Your task to perform on an android device: Open calendar and show me the second week of next month Image 0: 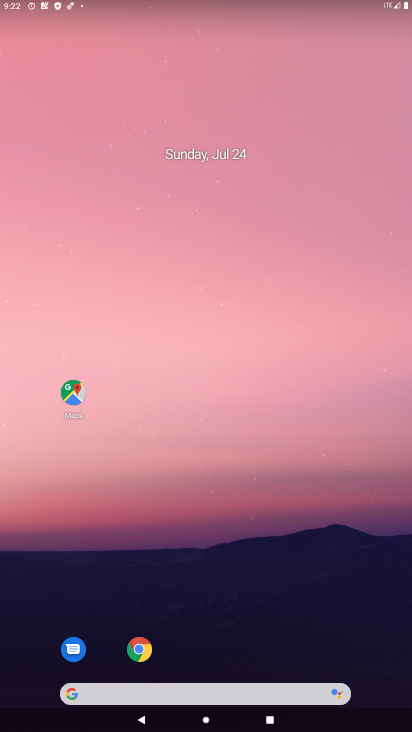
Step 0: drag from (9, 689) to (282, 105)
Your task to perform on an android device: Open calendar and show me the second week of next month Image 1: 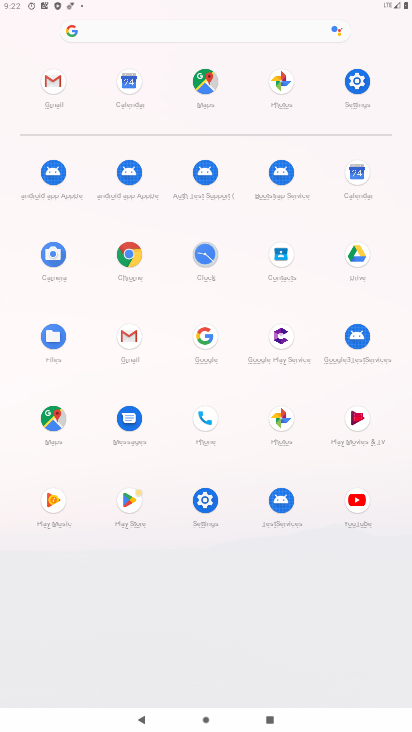
Step 1: click (350, 184)
Your task to perform on an android device: Open calendar and show me the second week of next month Image 2: 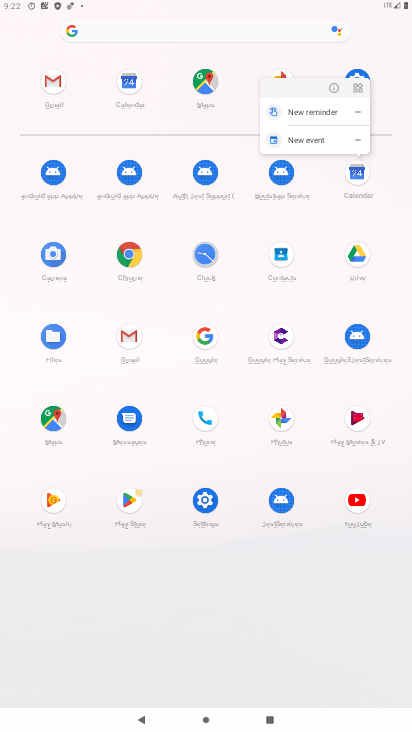
Step 2: click (352, 182)
Your task to perform on an android device: Open calendar and show me the second week of next month Image 3: 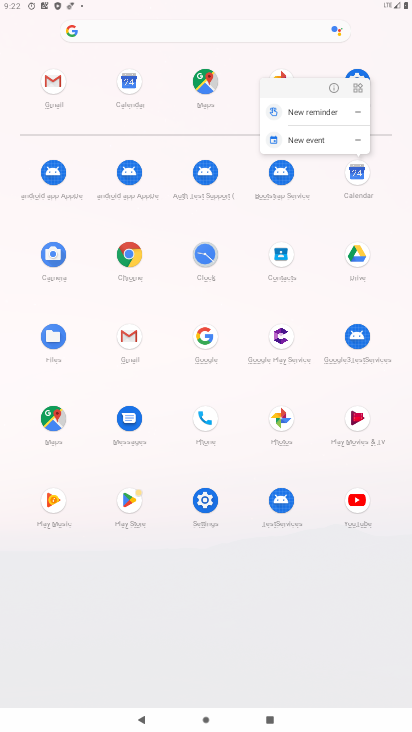
Step 3: click (350, 169)
Your task to perform on an android device: Open calendar and show me the second week of next month Image 4: 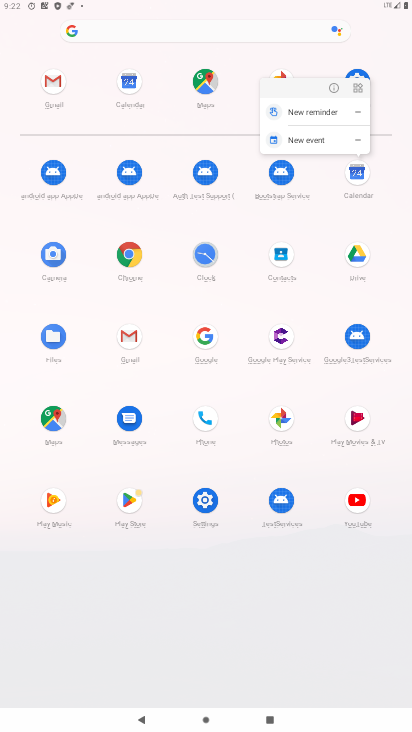
Step 4: click (362, 181)
Your task to perform on an android device: Open calendar and show me the second week of next month Image 5: 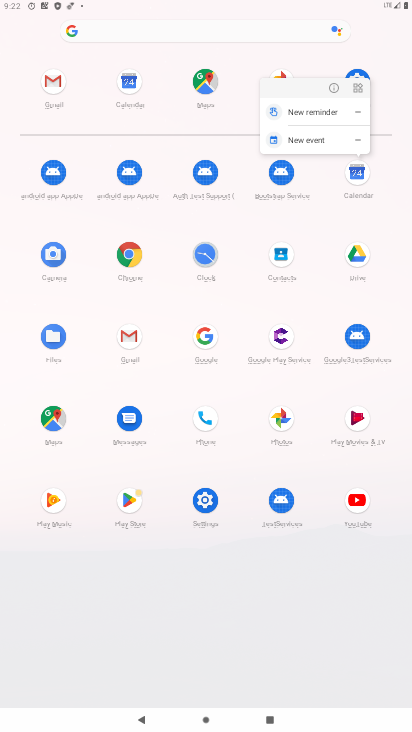
Step 5: task complete